Your task to perform on an android device: manage bookmarks in the chrome app Image 0: 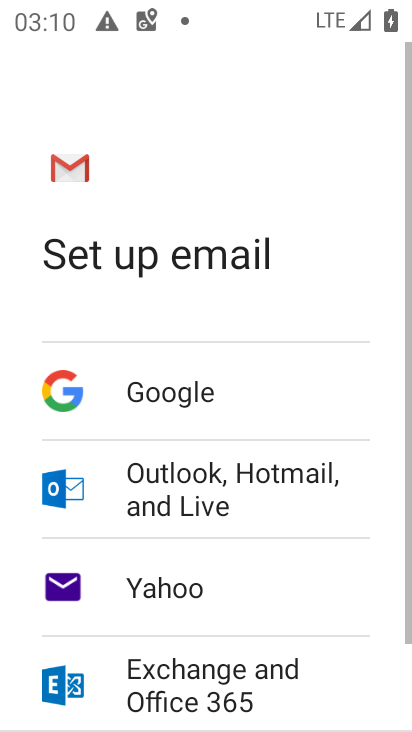
Step 0: press home button
Your task to perform on an android device: manage bookmarks in the chrome app Image 1: 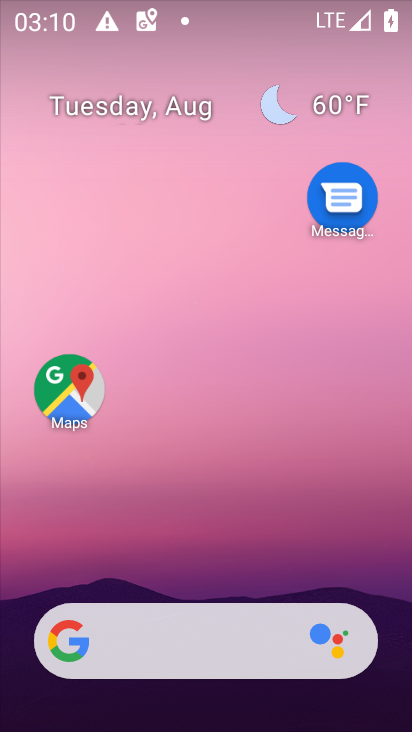
Step 1: drag from (232, 593) to (231, 25)
Your task to perform on an android device: manage bookmarks in the chrome app Image 2: 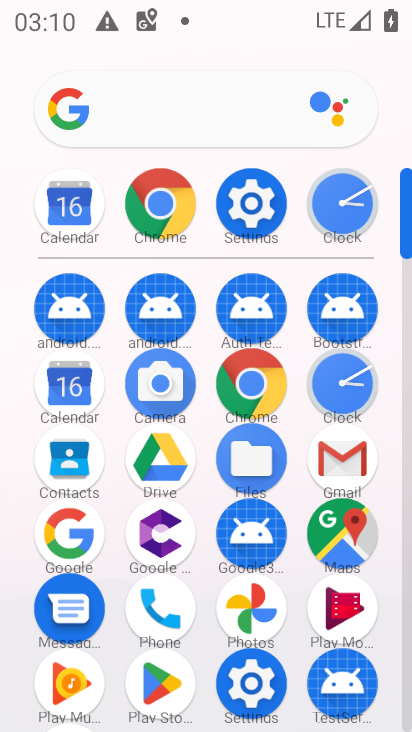
Step 2: click (171, 200)
Your task to perform on an android device: manage bookmarks in the chrome app Image 3: 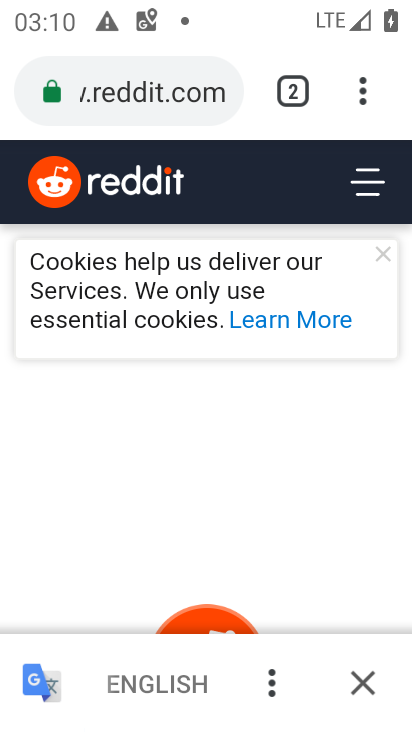
Step 3: click (370, 84)
Your task to perform on an android device: manage bookmarks in the chrome app Image 4: 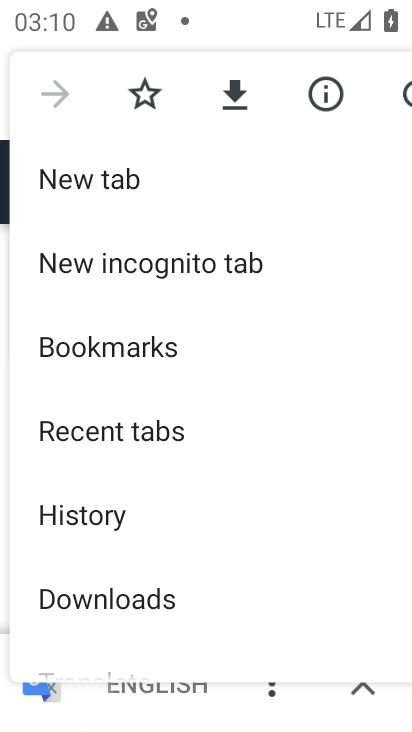
Step 4: drag from (190, 602) to (208, 349)
Your task to perform on an android device: manage bookmarks in the chrome app Image 5: 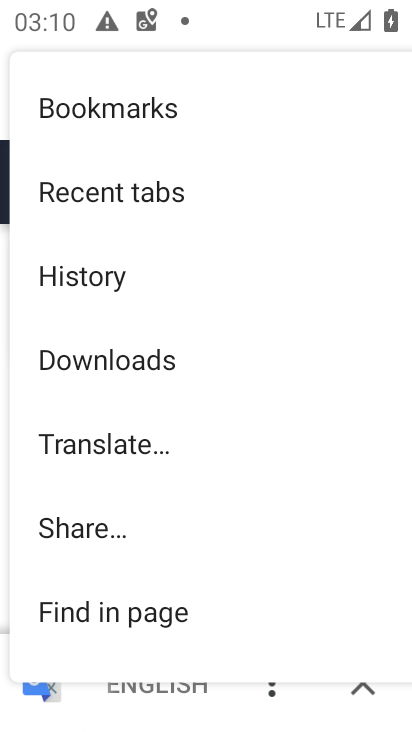
Step 5: click (113, 129)
Your task to perform on an android device: manage bookmarks in the chrome app Image 6: 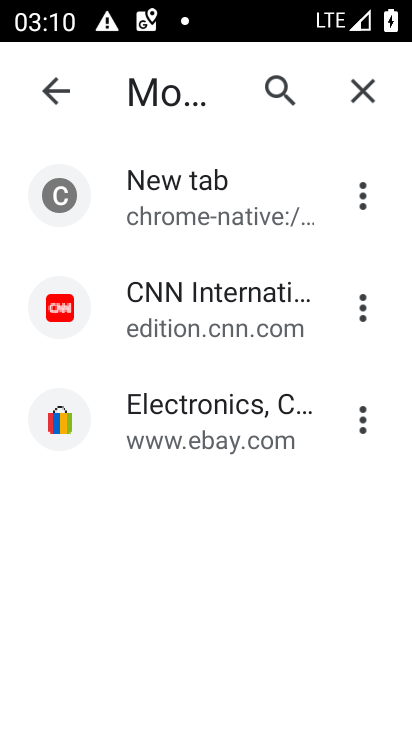
Step 6: click (355, 202)
Your task to perform on an android device: manage bookmarks in the chrome app Image 7: 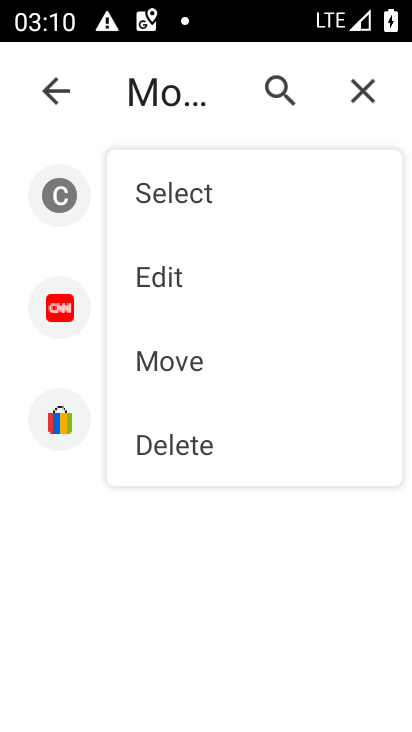
Step 7: click (179, 461)
Your task to perform on an android device: manage bookmarks in the chrome app Image 8: 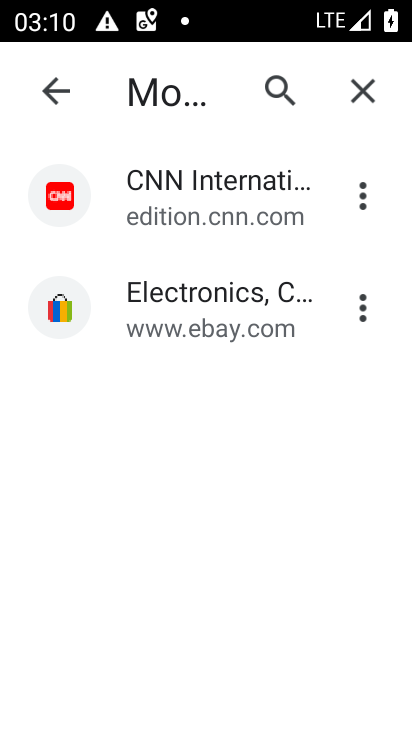
Step 8: task complete